Your task to perform on an android device: When is my next meeting? Image 0: 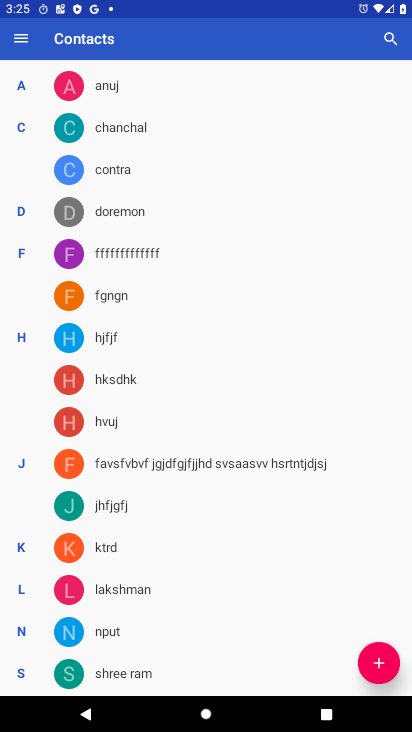
Step 0: press home button
Your task to perform on an android device: When is my next meeting? Image 1: 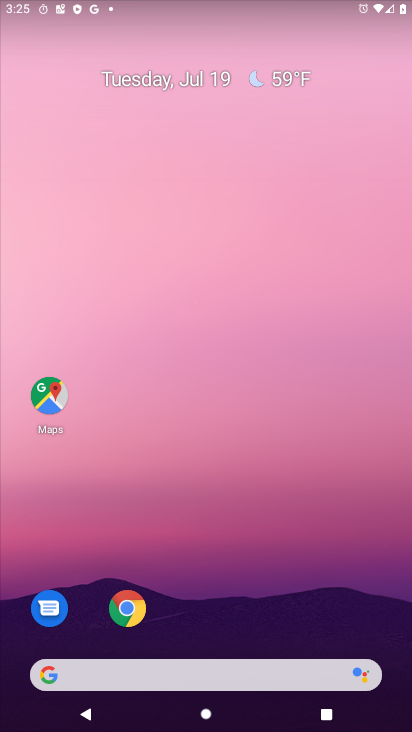
Step 1: drag from (290, 612) to (235, 150)
Your task to perform on an android device: When is my next meeting? Image 2: 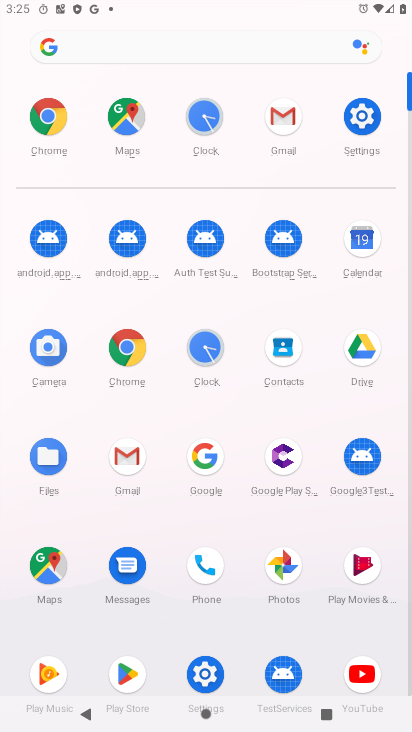
Step 2: click (361, 237)
Your task to perform on an android device: When is my next meeting? Image 3: 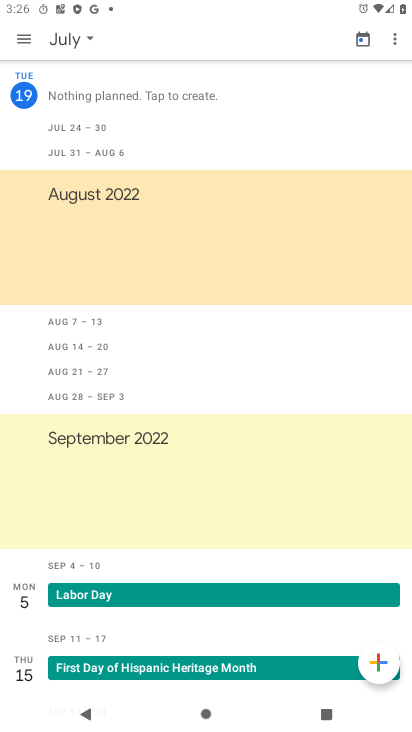
Step 3: click (21, 41)
Your task to perform on an android device: When is my next meeting? Image 4: 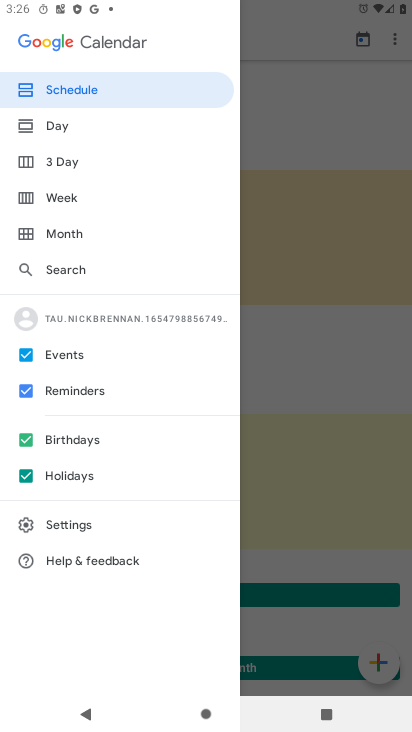
Step 4: click (78, 87)
Your task to perform on an android device: When is my next meeting? Image 5: 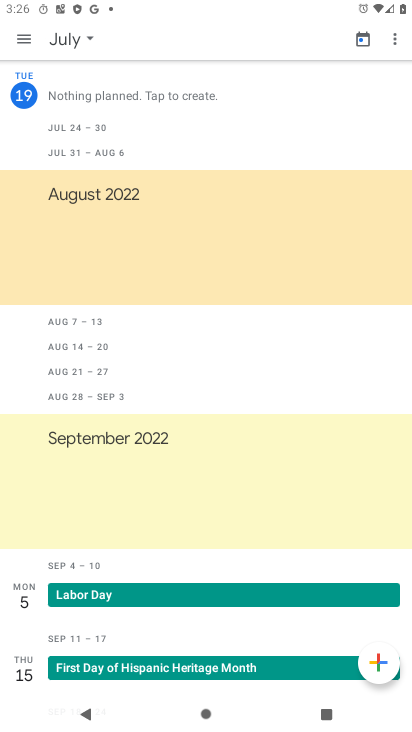
Step 5: task complete